Your task to perform on an android device: turn on location history Image 0: 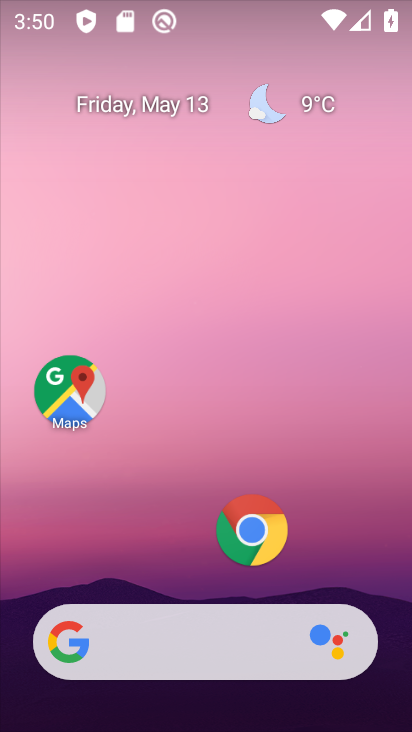
Step 0: drag from (191, 574) to (161, 98)
Your task to perform on an android device: turn on location history Image 1: 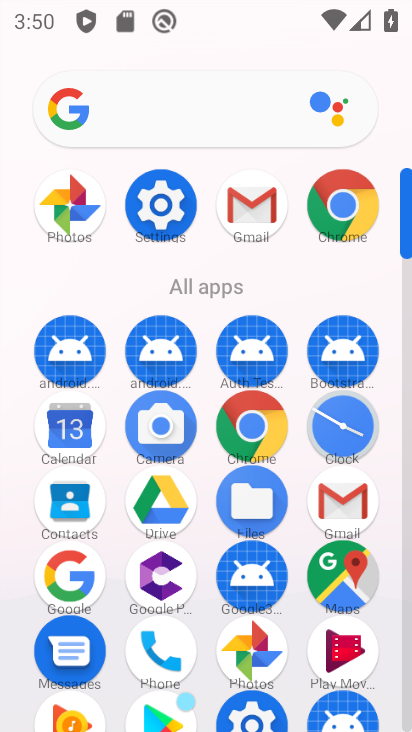
Step 1: click (159, 196)
Your task to perform on an android device: turn on location history Image 2: 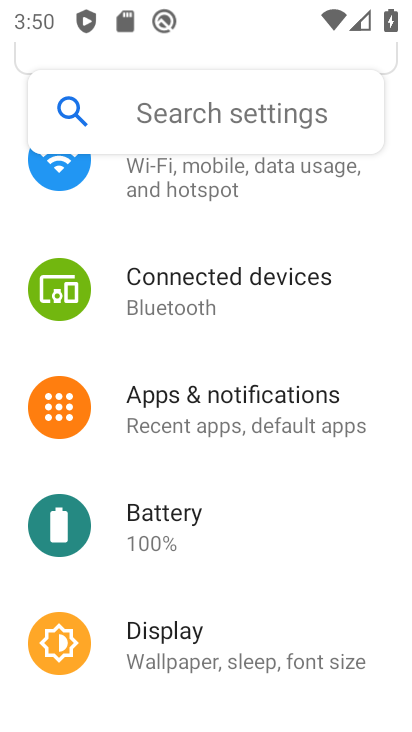
Step 2: drag from (201, 558) to (190, 103)
Your task to perform on an android device: turn on location history Image 3: 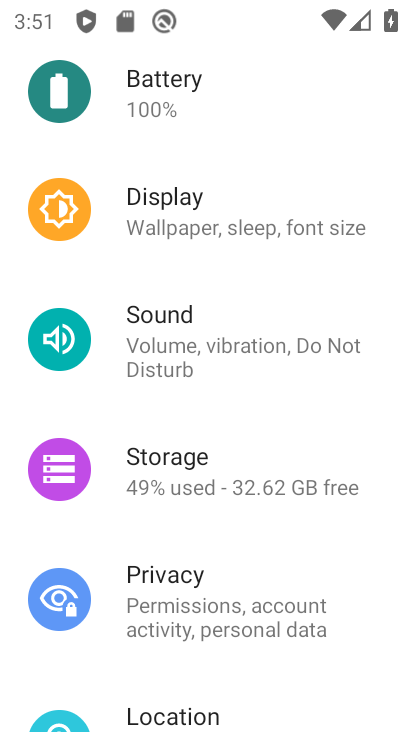
Step 3: click (216, 699)
Your task to perform on an android device: turn on location history Image 4: 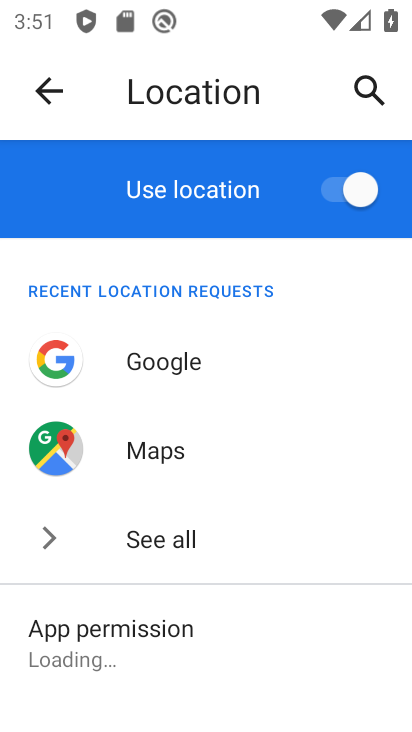
Step 4: drag from (193, 664) to (208, 335)
Your task to perform on an android device: turn on location history Image 5: 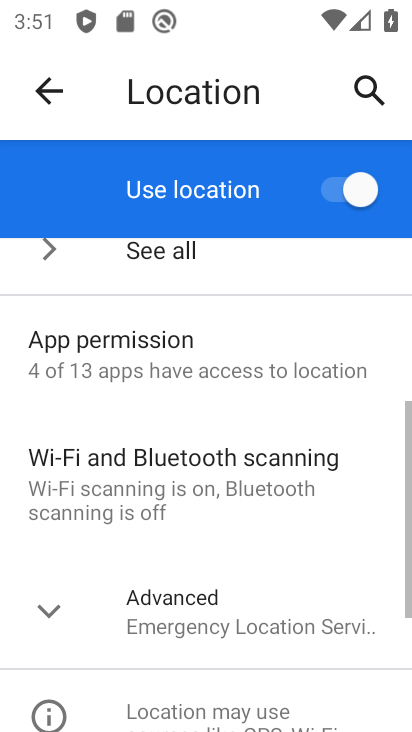
Step 5: click (55, 605)
Your task to perform on an android device: turn on location history Image 6: 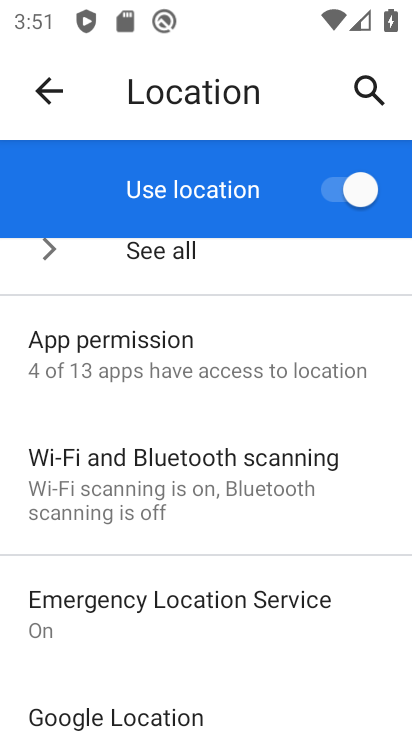
Step 6: drag from (183, 684) to (172, 200)
Your task to perform on an android device: turn on location history Image 7: 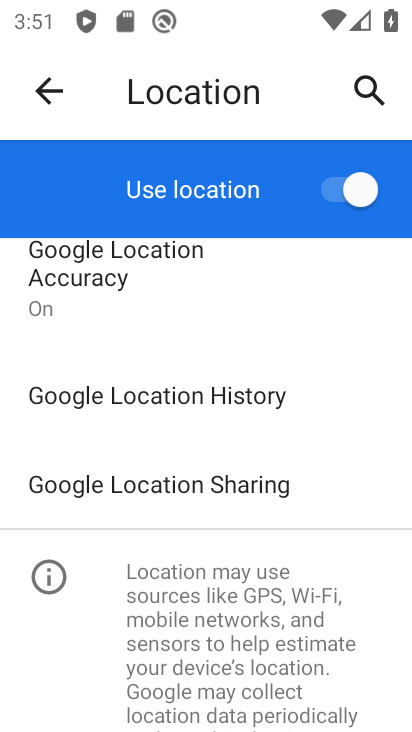
Step 7: click (230, 391)
Your task to perform on an android device: turn on location history Image 8: 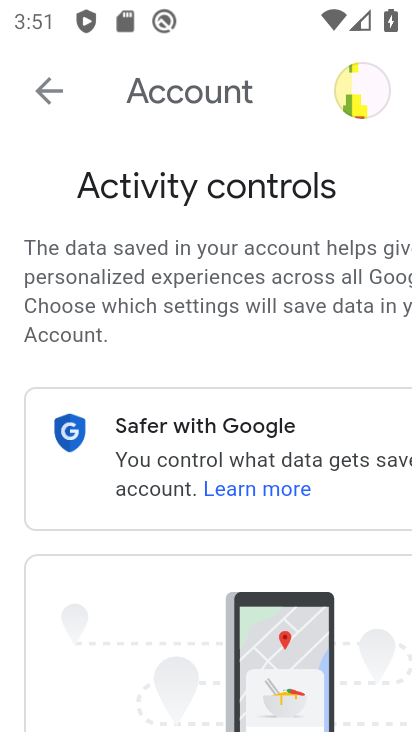
Step 8: task complete